Your task to perform on an android device: empty trash in the gmail app Image 0: 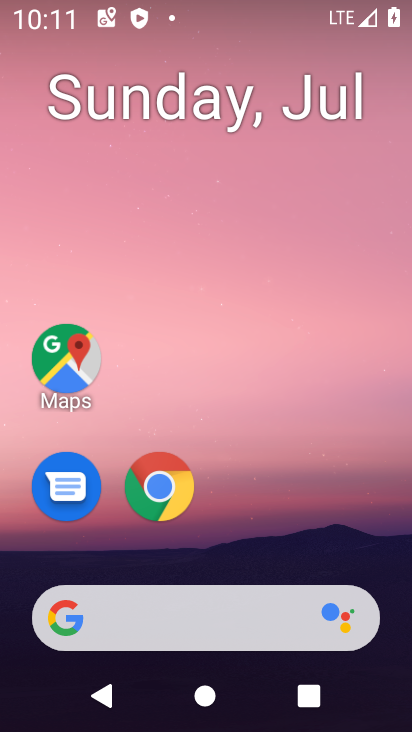
Step 0: drag from (353, 493) to (334, 9)
Your task to perform on an android device: empty trash in the gmail app Image 1: 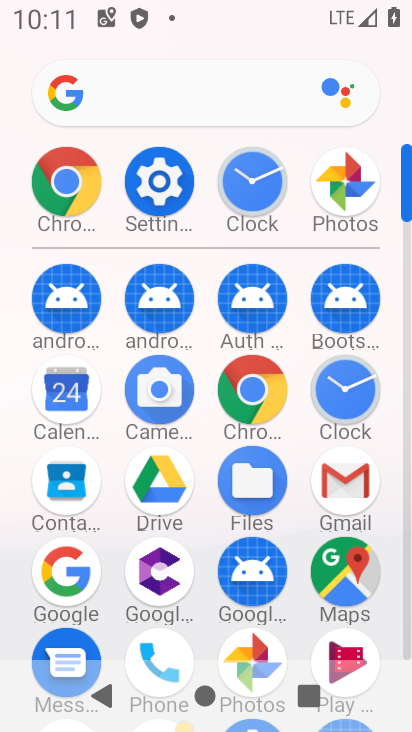
Step 1: click (354, 468)
Your task to perform on an android device: empty trash in the gmail app Image 2: 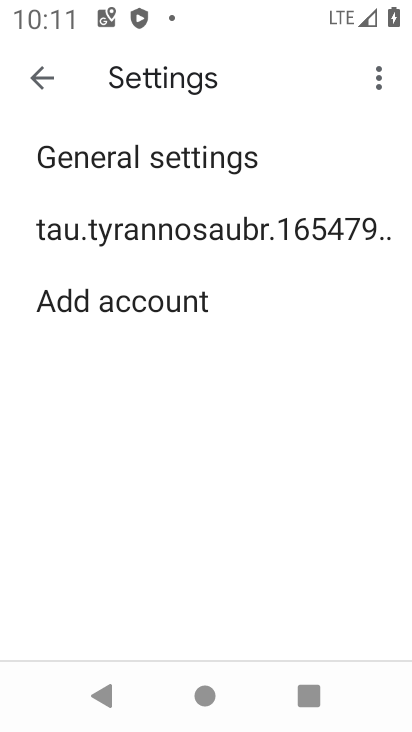
Step 2: press back button
Your task to perform on an android device: empty trash in the gmail app Image 3: 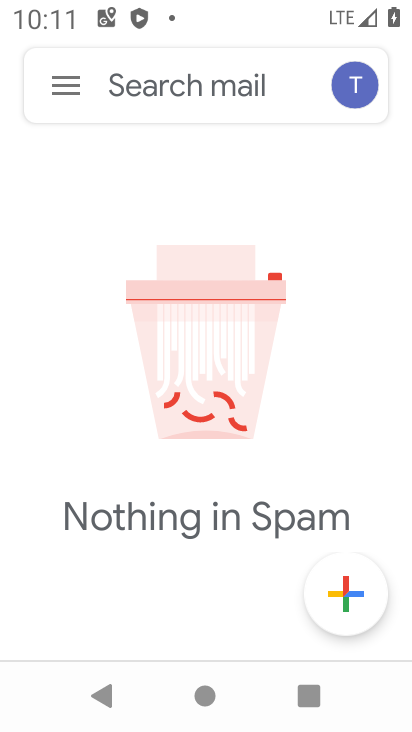
Step 3: click (66, 84)
Your task to perform on an android device: empty trash in the gmail app Image 4: 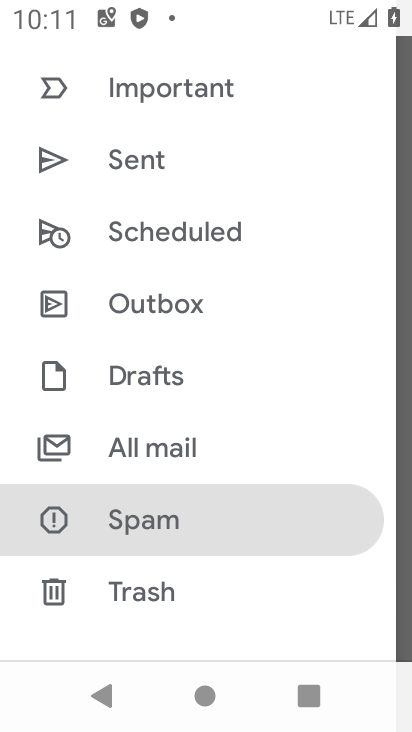
Step 4: drag from (328, 438) to (329, 281)
Your task to perform on an android device: empty trash in the gmail app Image 5: 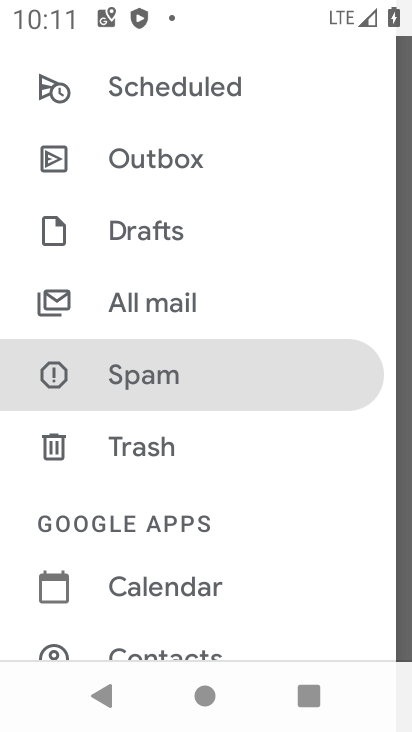
Step 5: drag from (306, 518) to (256, 207)
Your task to perform on an android device: empty trash in the gmail app Image 6: 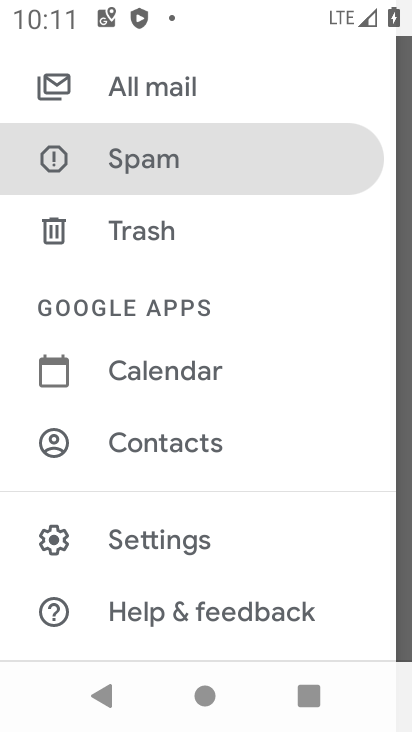
Step 6: click (215, 227)
Your task to perform on an android device: empty trash in the gmail app Image 7: 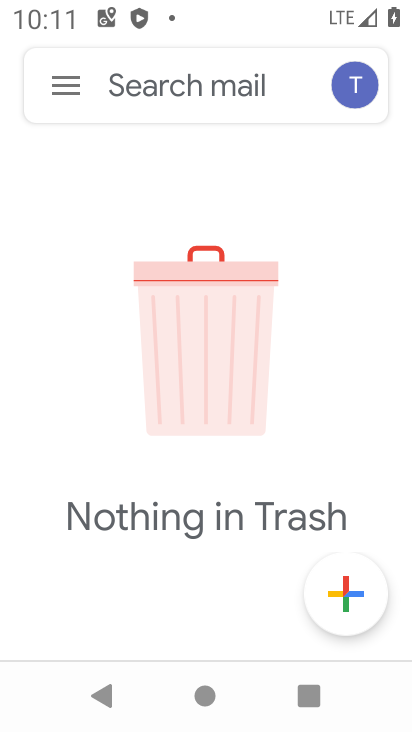
Step 7: task complete